Your task to perform on an android device: Go to Reddit.com Image 0: 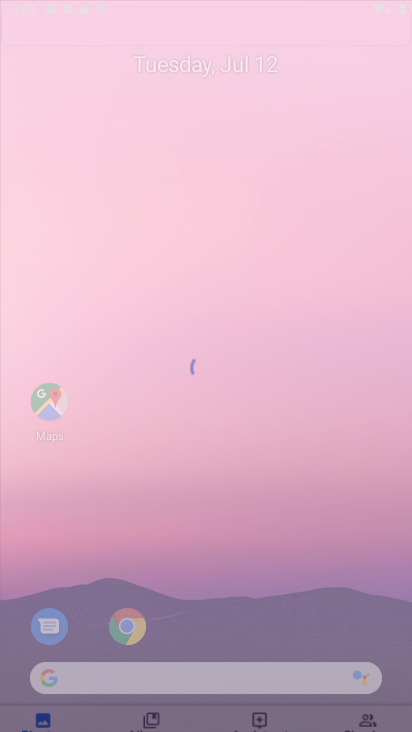
Step 0: press home button
Your task to perform on an android device: Go to Reddit.com Image 1: 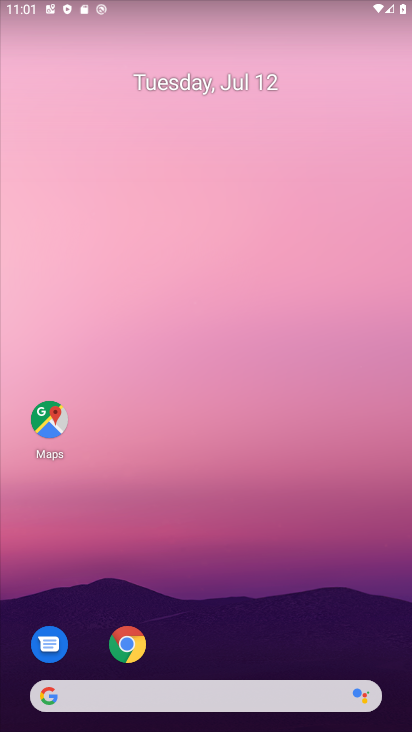
Step 1: click (125, 635)
Your task to perform on an android device: Go to Reddit.com Image 2: 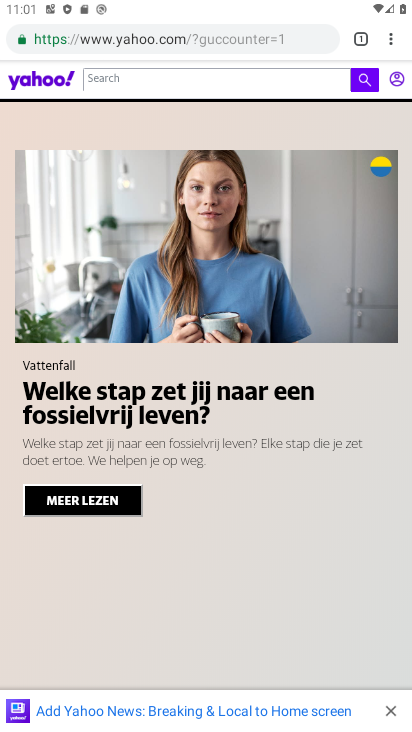
Step 2: click (358, 34)
Your task to perform on an android device: Go to Reddit.com Image 3: 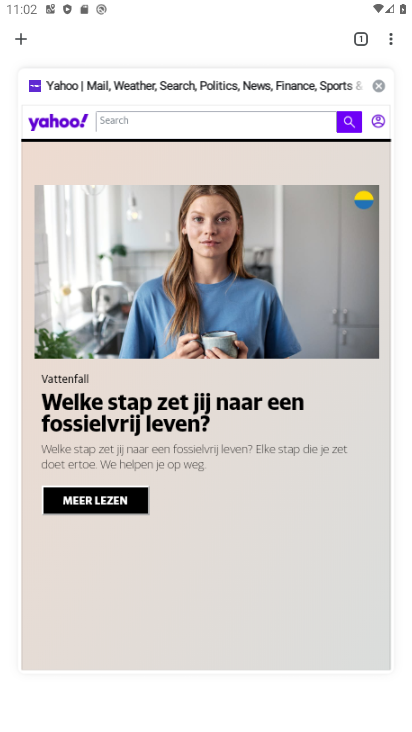
Step 3: click (378, 83)
Your task to perform on an android device: Go to Reddit.com Image 4: 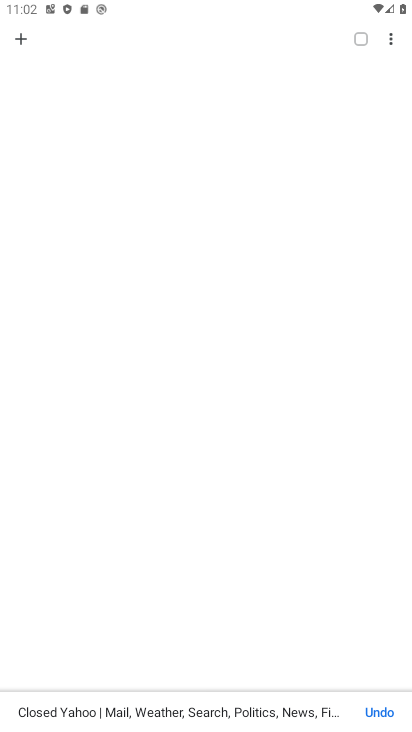
Step 4: click (25, 38)
Your task to perform on an android device: Go to Reddit.com Image 5: 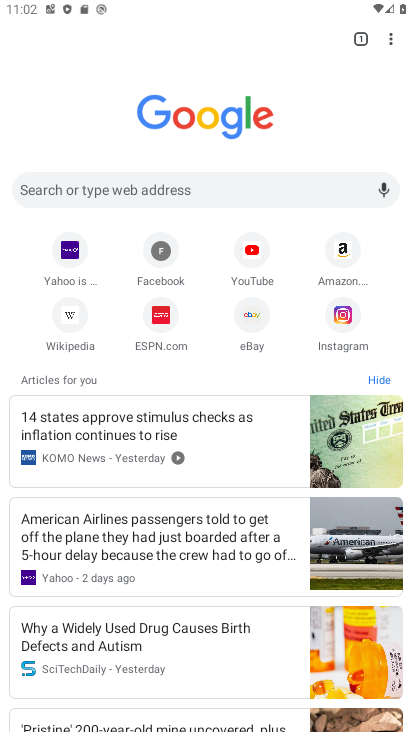
Step 5: click (131, 184)
Your task to perform on an android device: Go to Reddit.com Image 6: 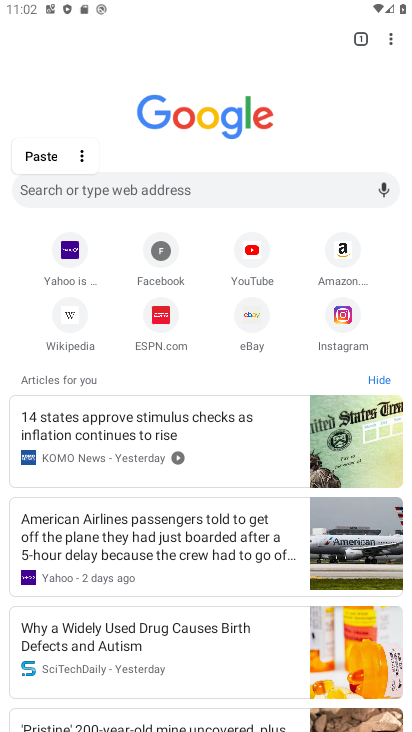
Step 6: click (77, 187)
Your task to perform on an android device: Go to Reddit.com Image 7: 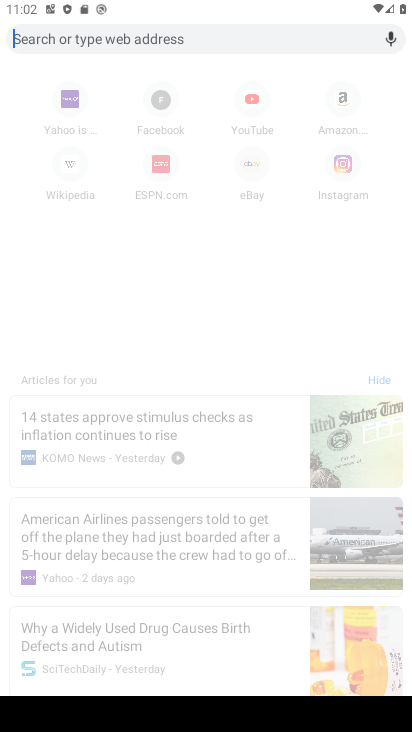
Step 7: type "reddit.com"
Your task to perform on an android device: Go to Reddit.com Image 8: 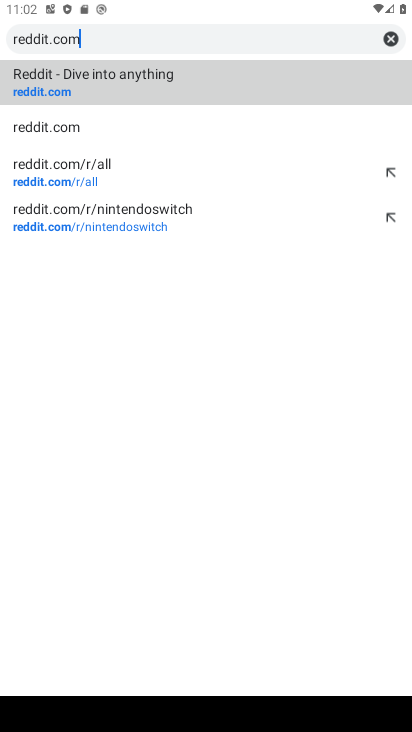
Step 8: click (86, 82)
Your task to perform on an android device: Go to Reddit.com Image 9: 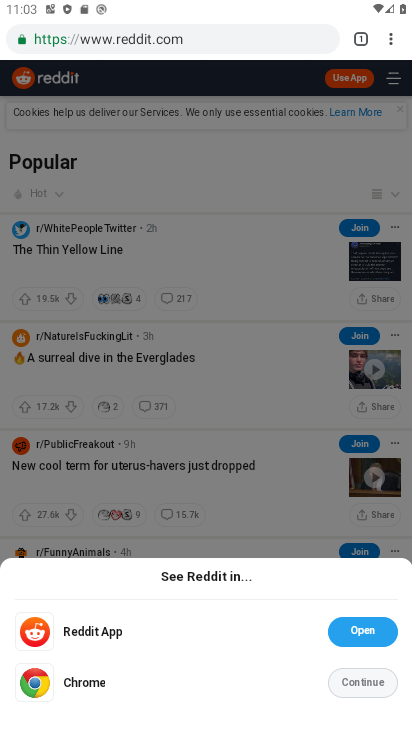
Step 9: click (364, 684)
Your task to perform on an android device: Go to Reddit.com Image 10: 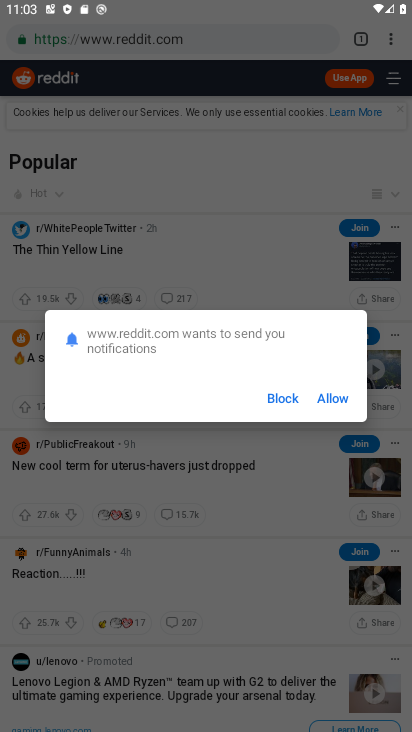
Step 10: click (333, 396)
Your task to perform on an android device: Go to Reddit.com Image 11: 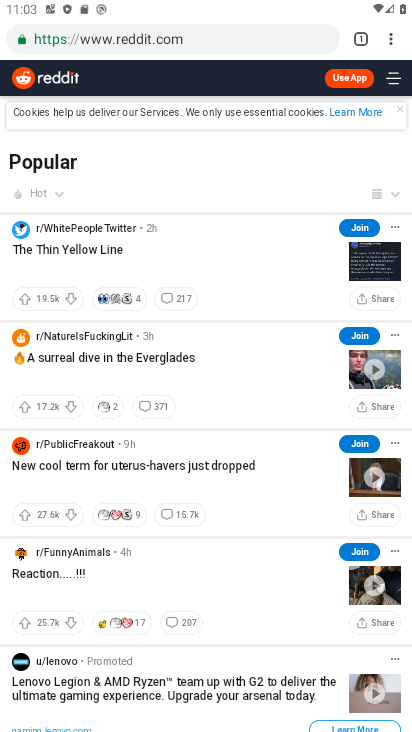
Step 11: task complete